Your task to perform on an android device: Is it going to rain this weekend? Image 0: 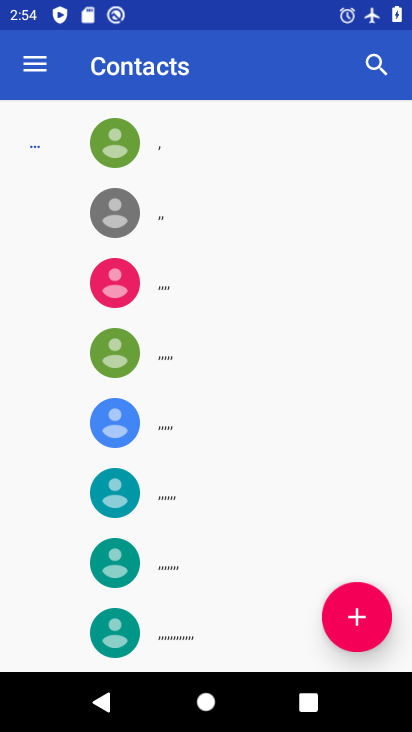
Step 0: press back button
Your task to perform on an android device: Is it going to rain this weekend? Image 1: 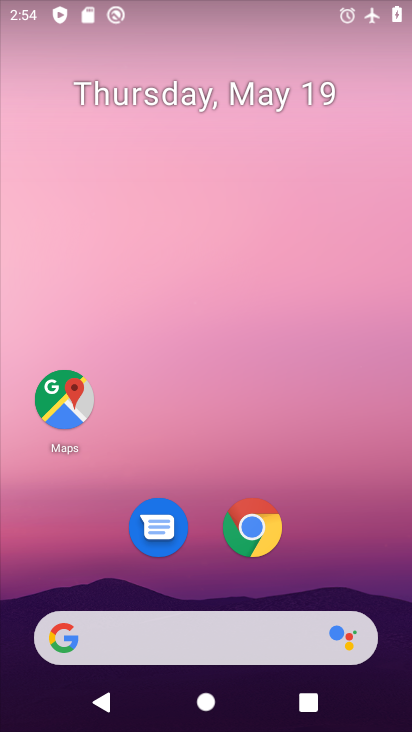
Step 1: drag from (216, 480) to (315, 45)
Your task to perform on an android device: Is it going to rain this weekend? Image 2: 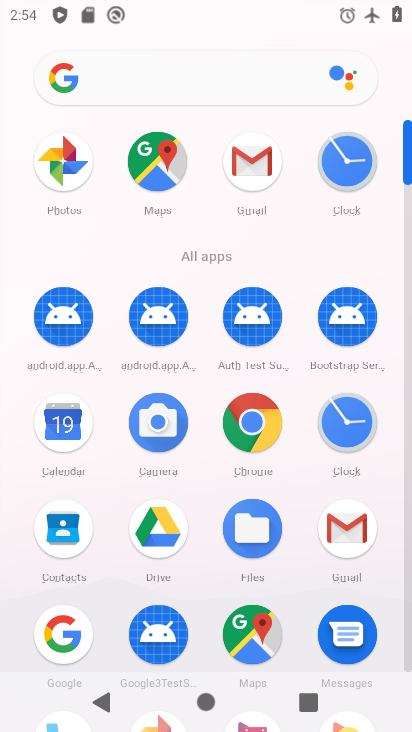
Step 2: click (172, 80)
Your task to perform on an android device: Is it going to rain this weekend? Image 3: 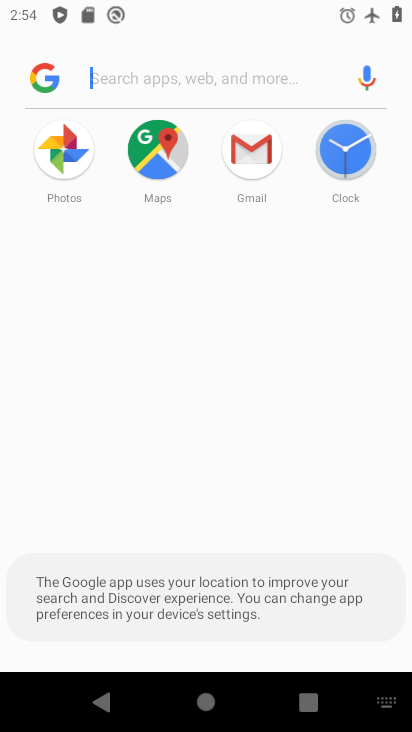
Step 3: press back button
Your task to perform on an android device: Is it going to rain this weekend? Image 4: 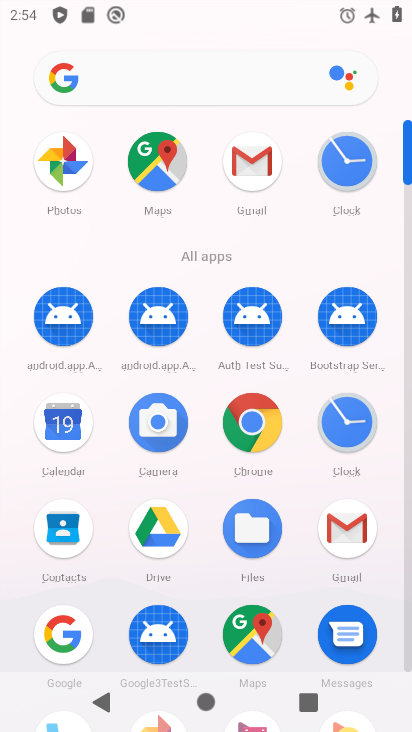
Step 4: click (60, 441)
Your task to perform on an android device: Is it going to rain this weekend? Image 5: 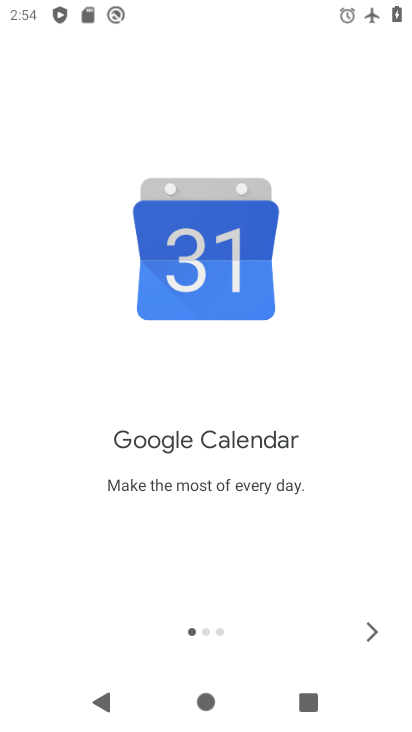
Step 5: click (359, 634)
Your task to perform on an android device: Is it going to rain this weekend? Image 6: 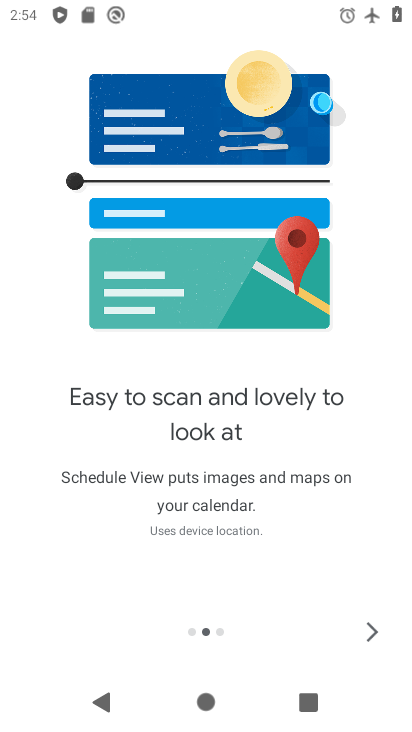
Step 6: click (377, 632)
Your task to perform on an android device: Is it going to rain this weekend? Image 7: 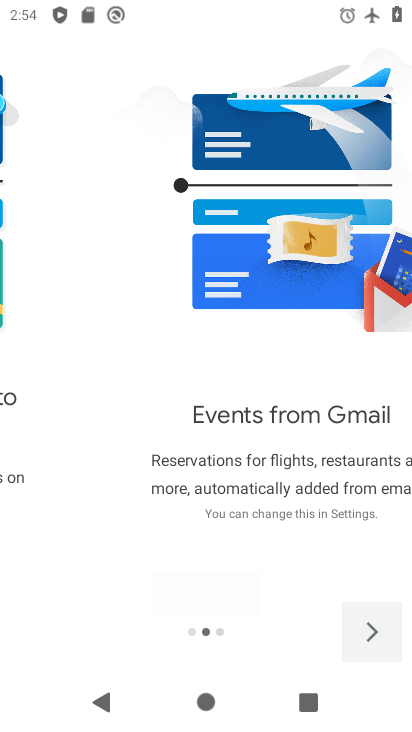
Step 7: click (377, 632)
Your task to perform on an android device: Is it going to rain this weekend? Image 8: 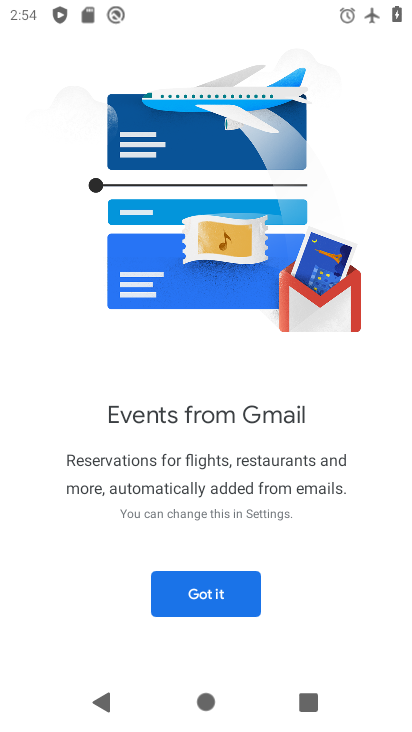
Step 8: click (242, 592)
Your task to perform on an android device: Is it going to rain this weekend? Image 9: 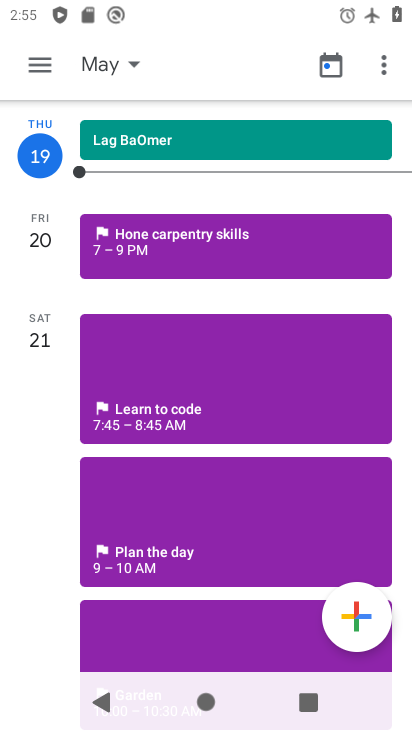
Step 9: press back button
Your task to perform on an android device: Is it going to rain this weekend? Image 10: 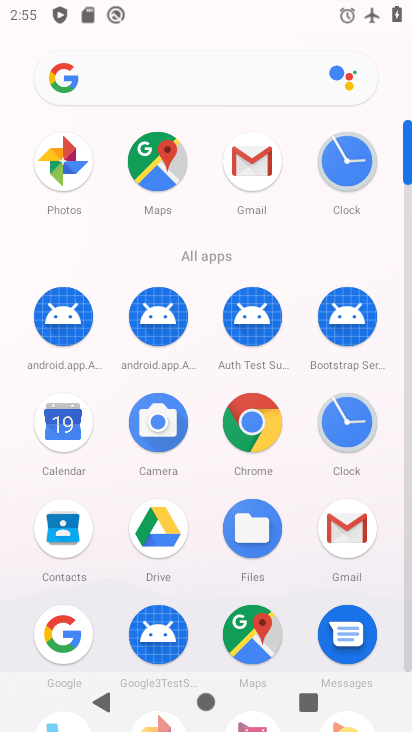
Step 10: press home button
Your task to perform on an android device: Is it going to rain this weekend? Image 11: 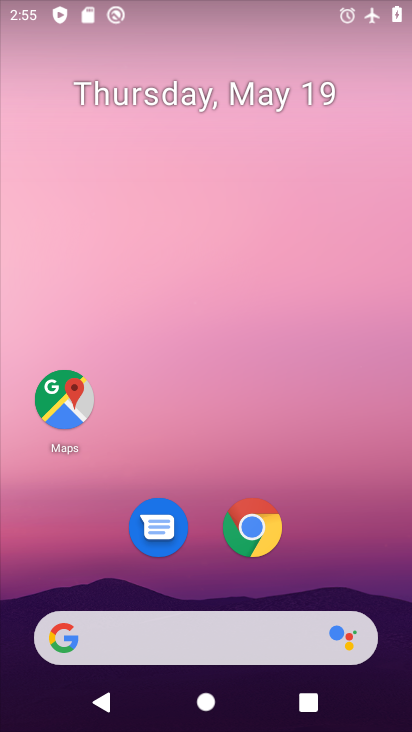
Step 11: click (162, 649)
Your task to perform on an android device: Is it going to rain this weekend? Image 12: 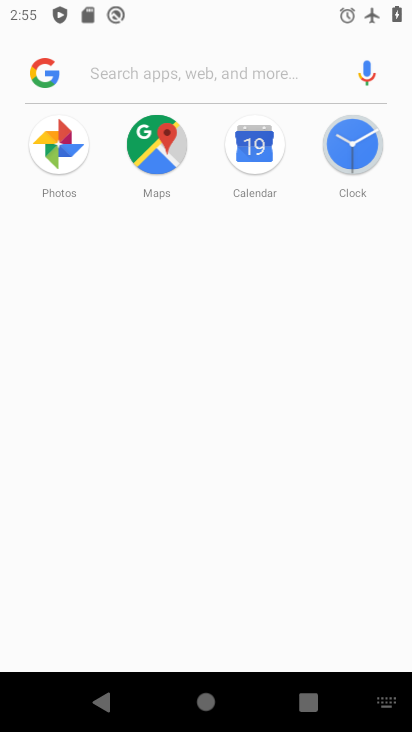
Step 12: click (126, 71)
Your task to perform on an android device: Is it going to rain this weekend? Image 13: 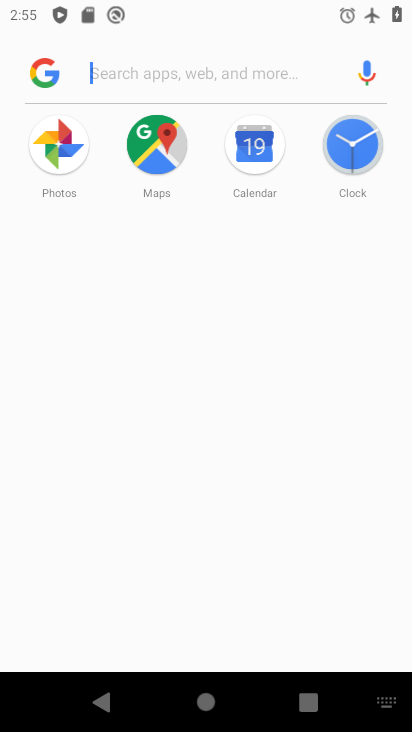
Step 13: type "weather"
Your task to perform on an android device: Is it going to rain this weekend? Image 14: 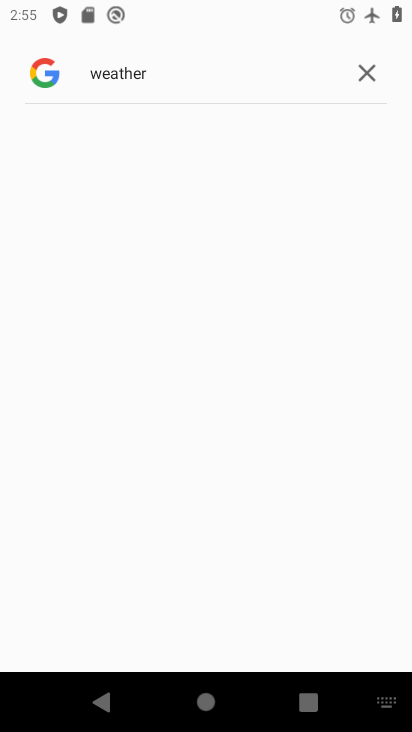
Step 14: drag from (302, 7) to (219, 649)
Your task to perform on an android device: Is it going to rain this weekend? Image 15: 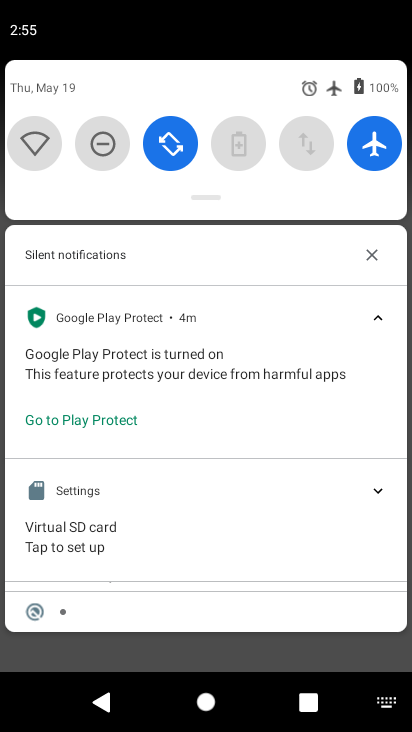
Step 15: click (375, 143)
Your task to perform on an android device: Is it going to rain this weekend? Image 16: 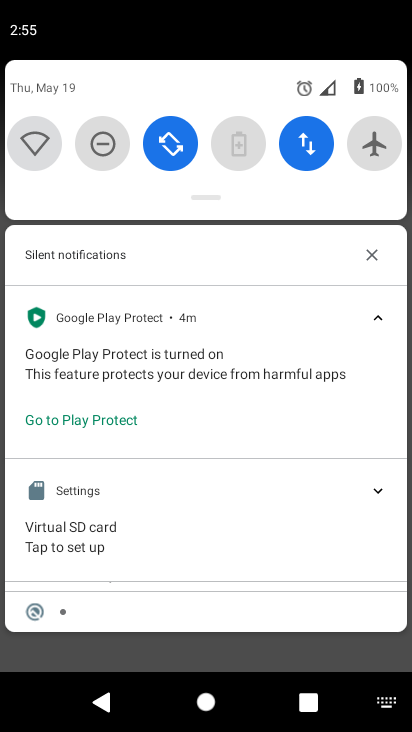
Step 16: click (200, 657)
Your task to perform on an android device: Is it going to rain this weekend? Image 17: 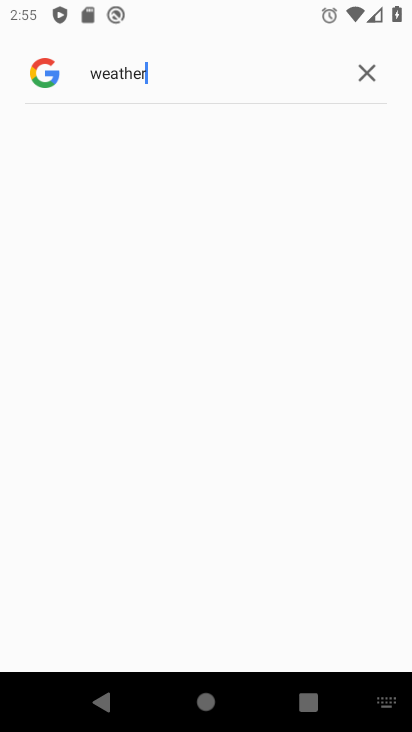
Step 17: click (193, 66)
Your task to perform on an android device: Is it going to rain this weekend? Image 18: 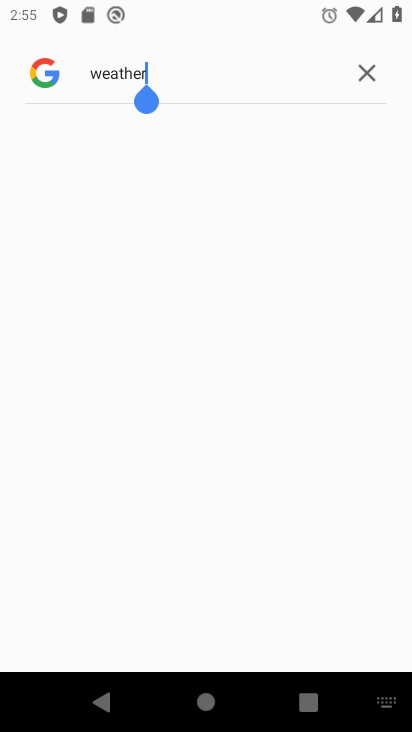
Step 18: drag from (181, 137) to (162, 589)
Your task to perform on an android device: Is it going to rain this weekend? Image 19: 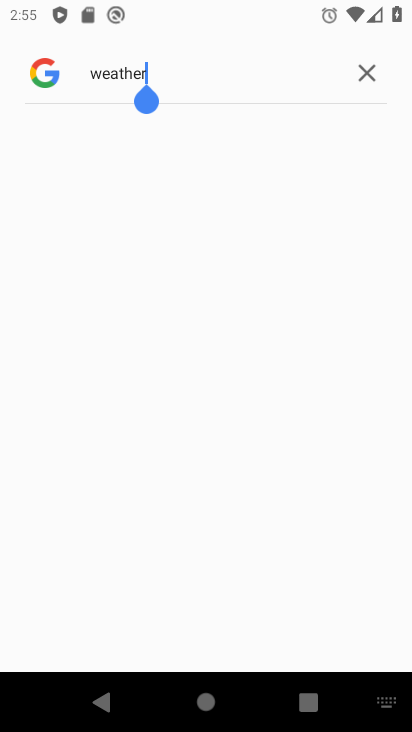
Step 19: press back button
Your task to perform on an android device: Is it going to rain this weekend? Image 20: 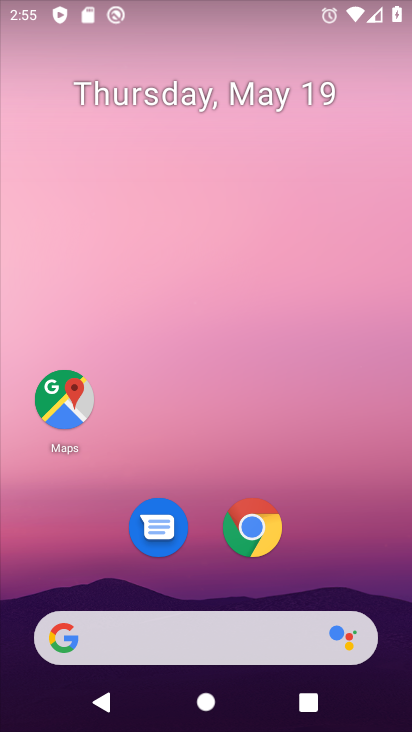
Step 20: click (184, 639)
Your task to perform on an android device: Is it going to rain this weekend? Image 21: 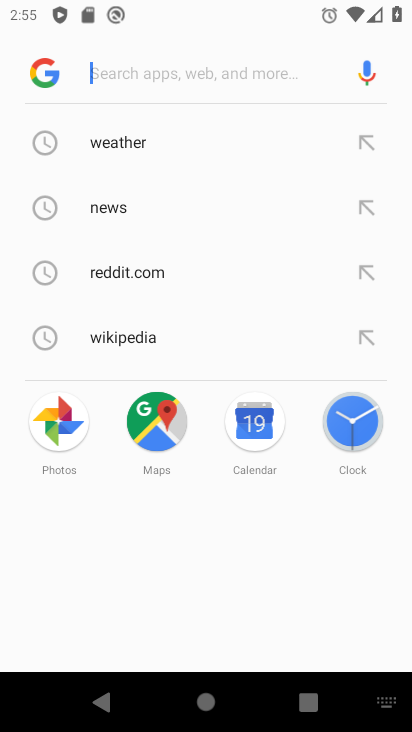
Step 21: click (166, 142)
Your task to perform on an android device: Is it going to rain this weekend? Image 22: 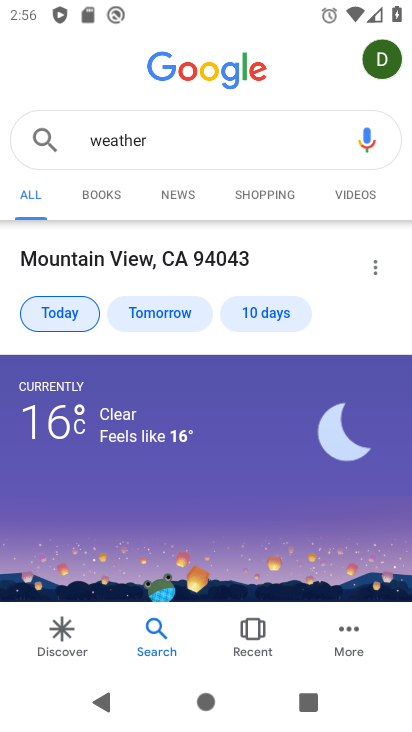
Step 22: drag from (159, 591) to (228, 435)
Your task to perform on an android device: Is it going to rain this weekend? Image 23: 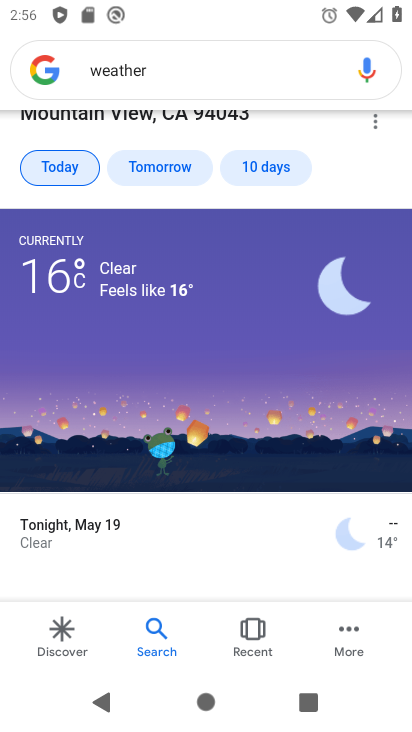
Step 23: click (258, 166)
Your task to perform on an android device: Is it going to rain this weekend? Image 24: 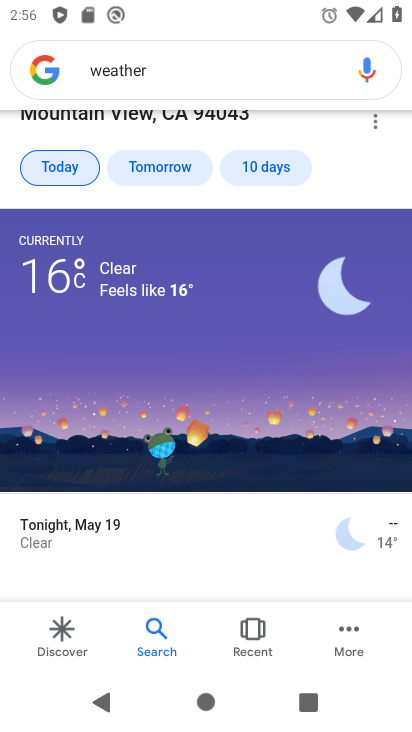
Step 24: click (270, 167)
Your task to perform on an android device: Is it going to rain this weekend? Image 25: 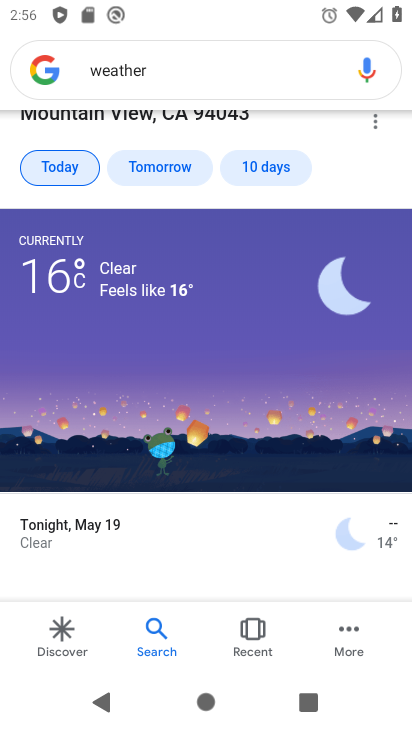
Step 25: task complete